Your task to perform on an android device: Clear all items from cart on walmart. Add "acer predator" to the cart on walmart Image 0: 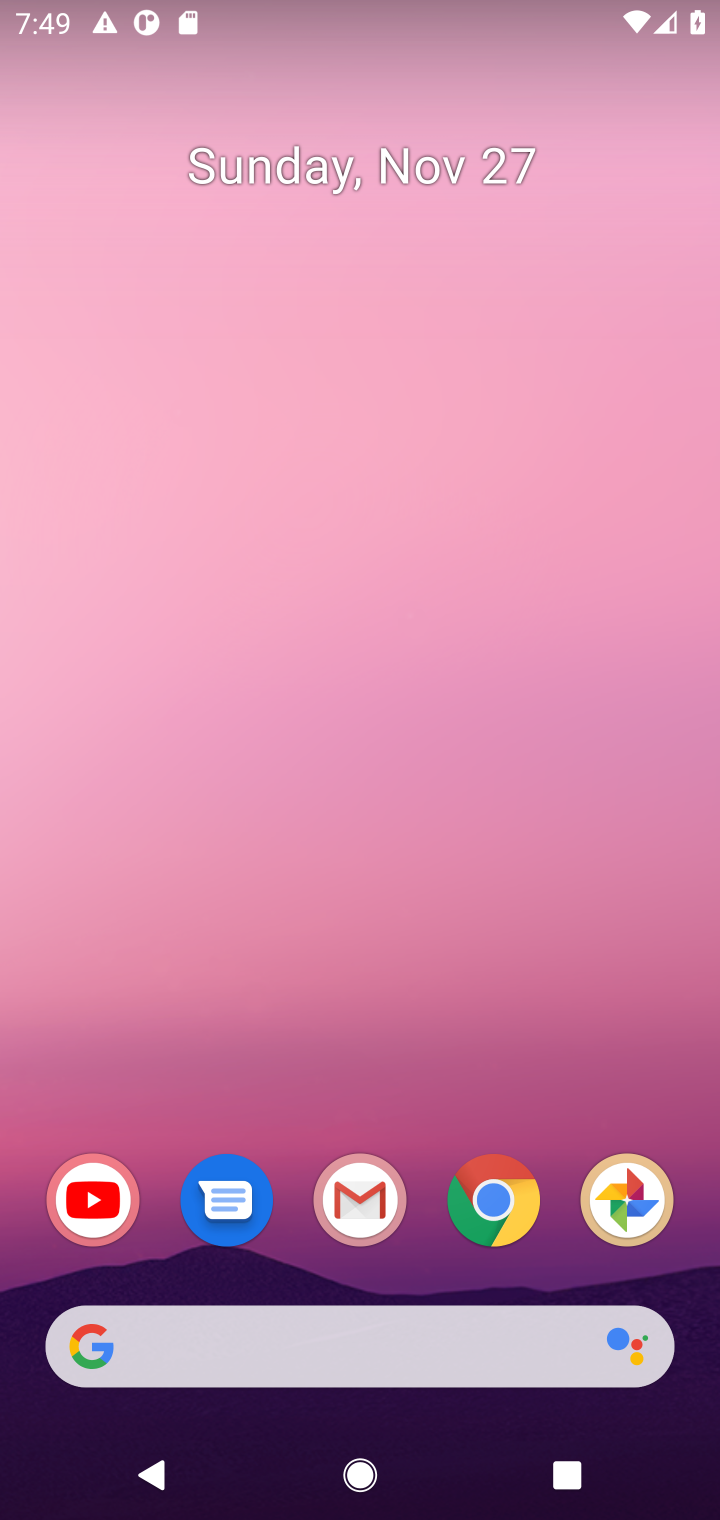
Step 0: click (494, 1206)
Your task to perform on an android device: Clear all items from cart on walmart. Add "acer predator" to the cart on walmart Image 1: 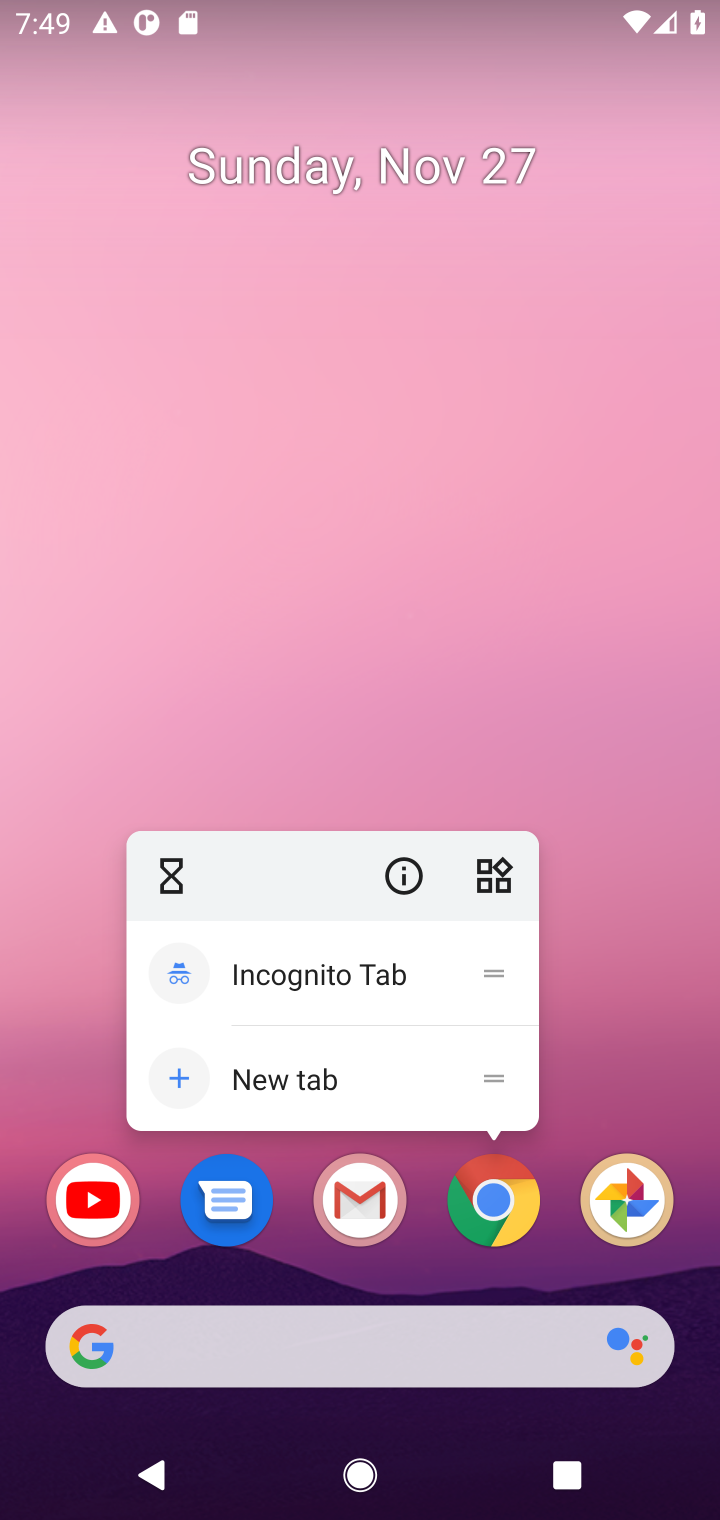
Step 1: click (494, 1206)
Your task to perform on an android device: Clear all items from cart on walmart. Add "acer predator" to the cart on walmart Image 2: 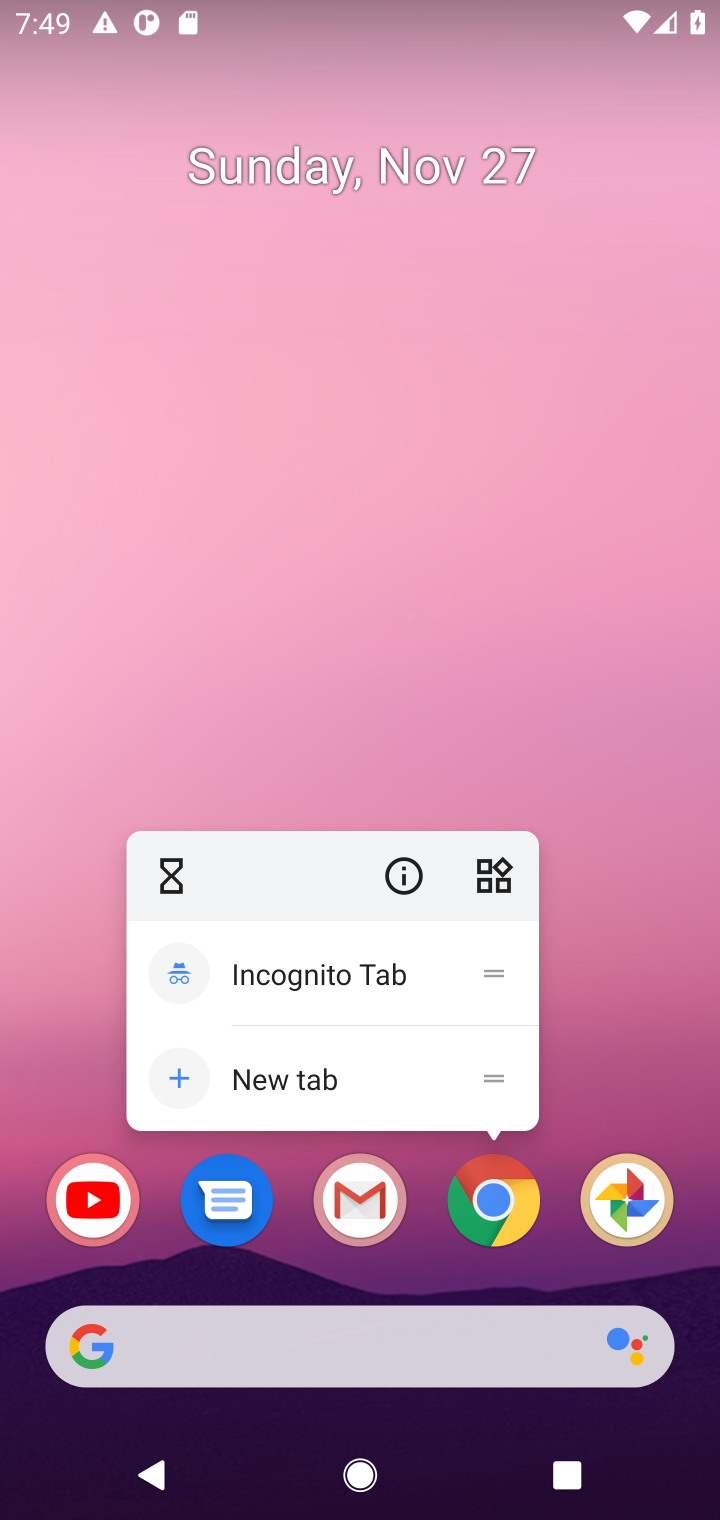
Step 2: click (499, 1201)
Your task to perform on an android device: Clear all items from cart on walmart. Add "acer predator" to the cart on walmart Image 3: 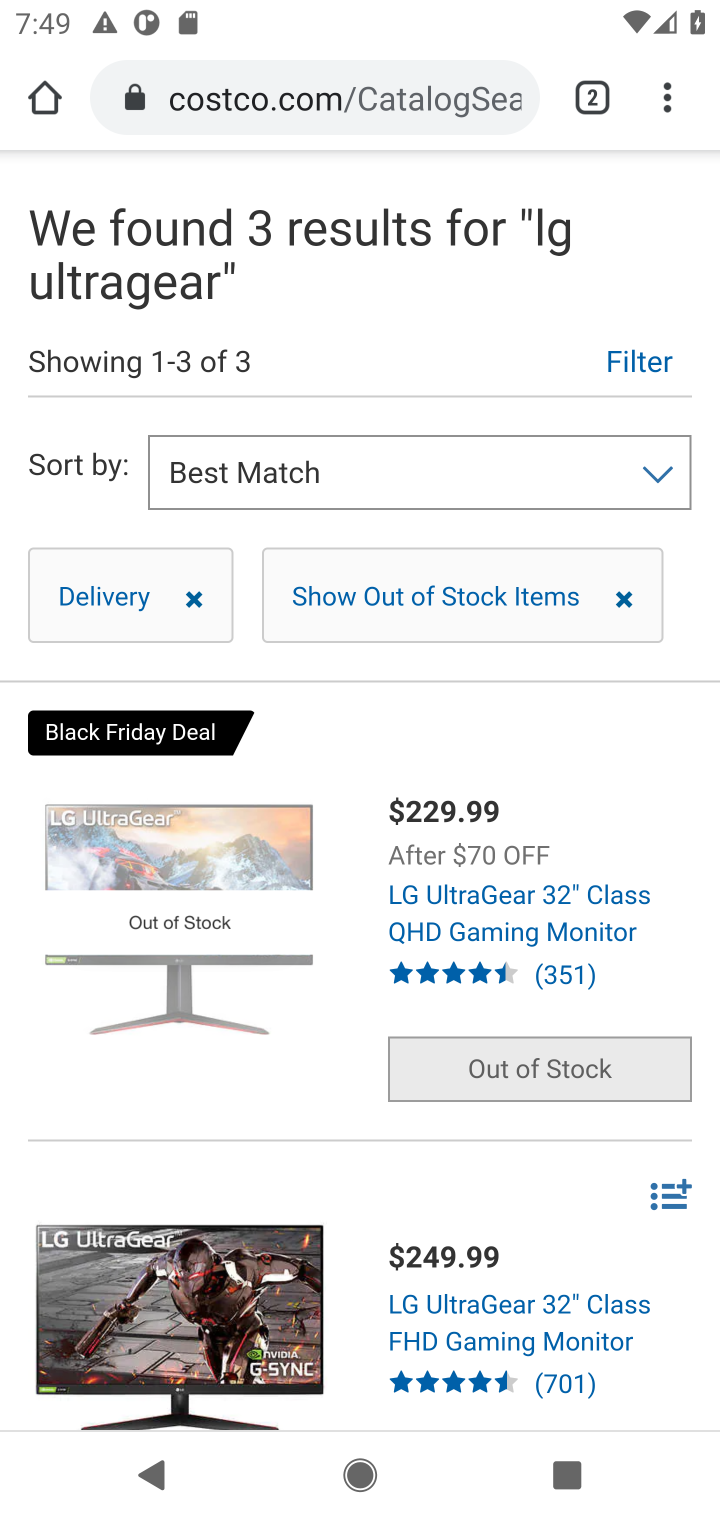
Step 3: click (326, 100)
Your task to perform on an android device: Clear all items from cart on walmart. Add "acer predator" to the cart on walmart Image 4: 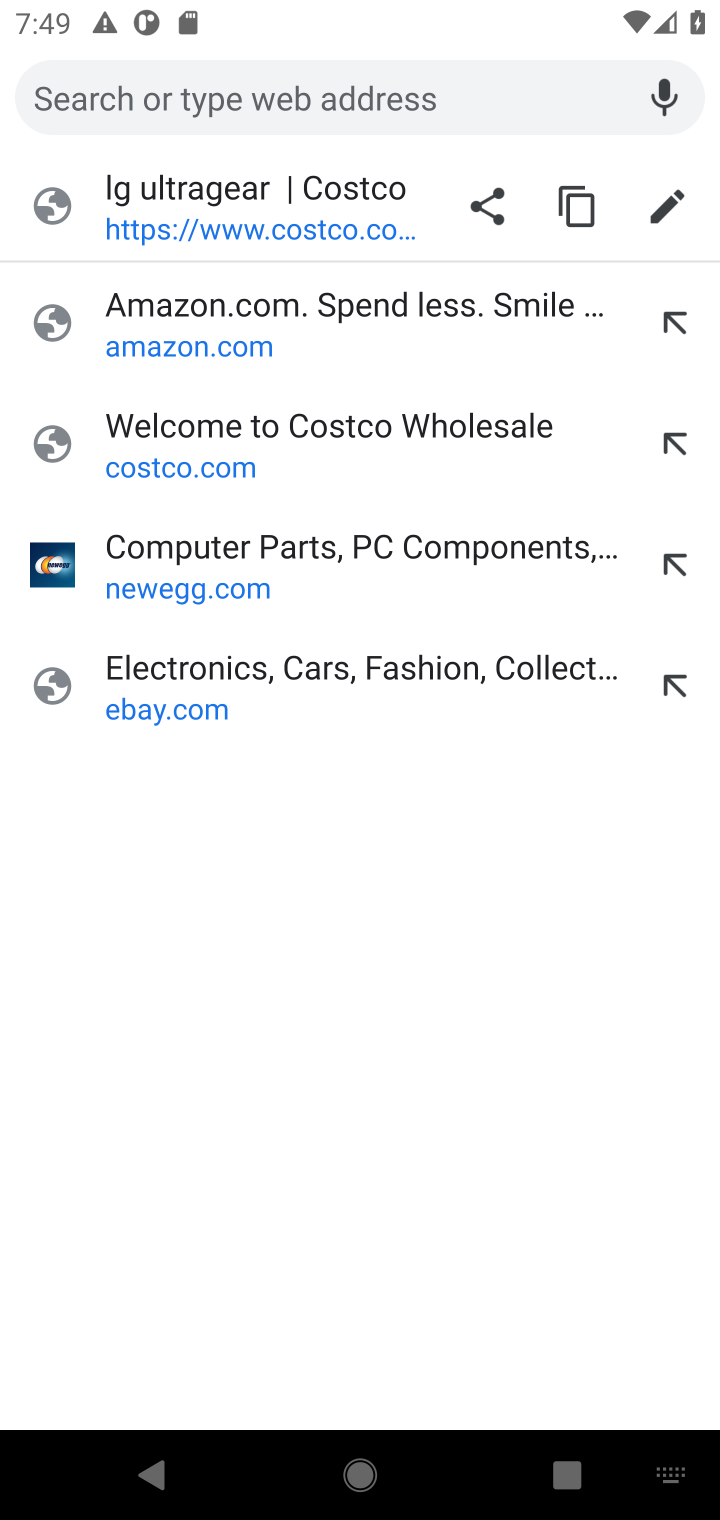
Step 4: type "walmart.com"
Your task to perform on an android device: Clear all items from cart on walmart. Add "acer predator" to the cart on walmart Image 5: 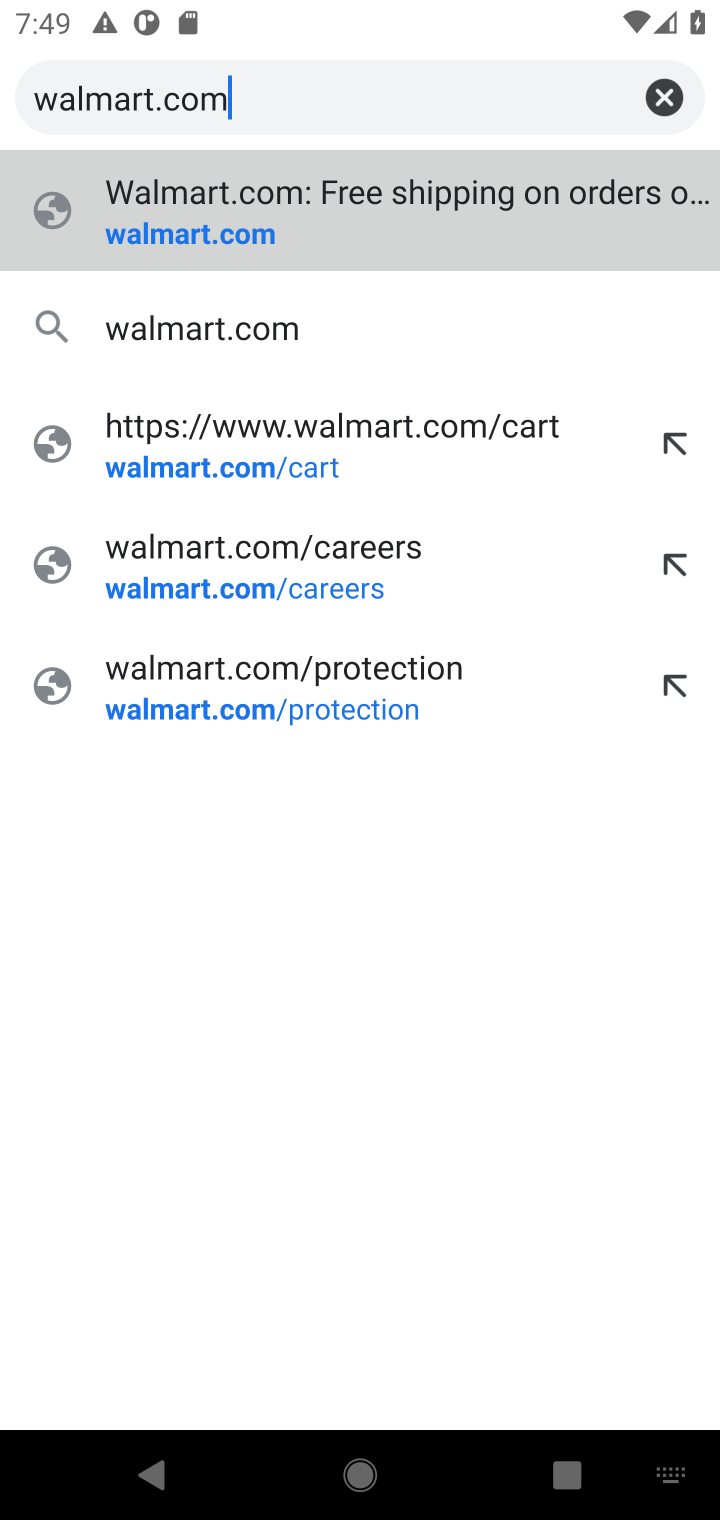
Step 5: click (142, 241)
Your task to perform on an android device: Clear all items from cart on walmart. Add "acer predator" to the cart on walmart Image 6: 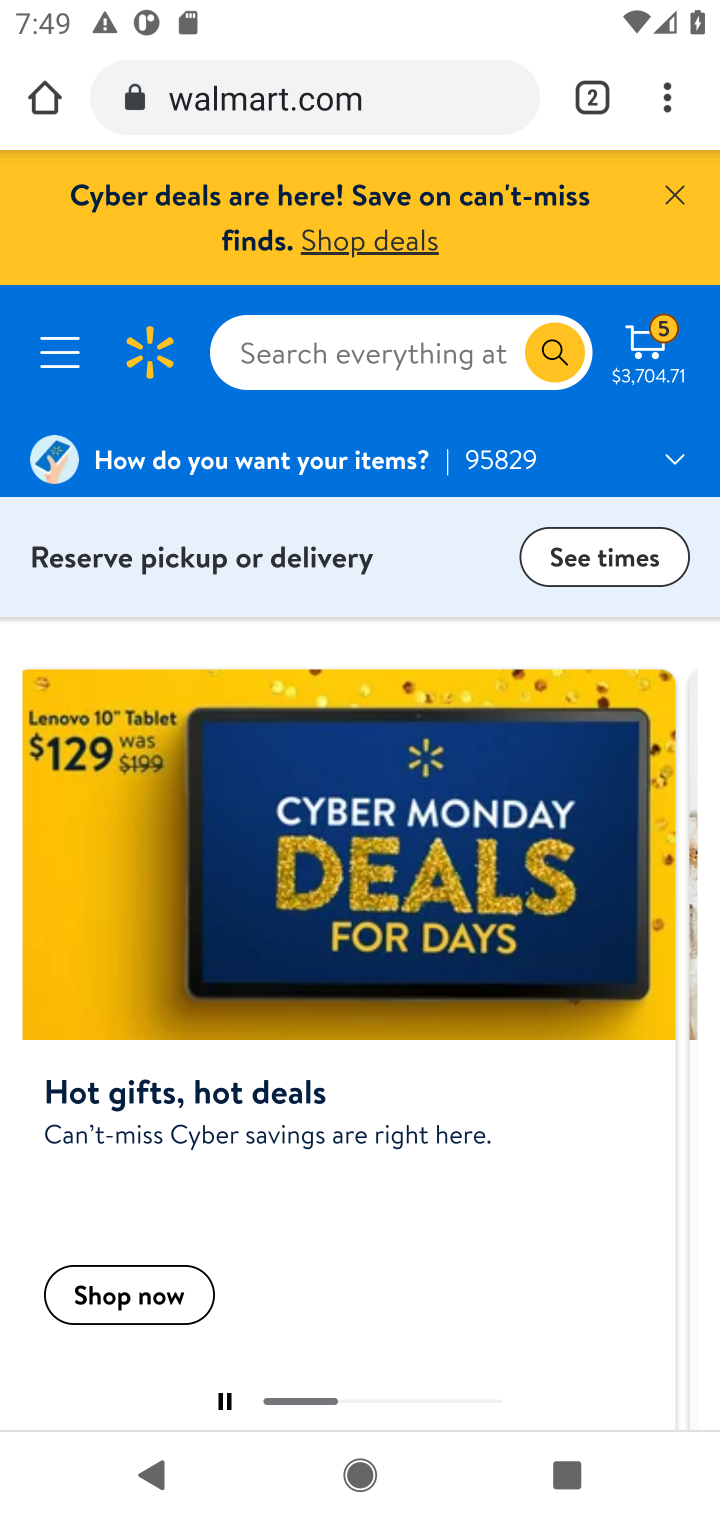
Step 6: click (642, 340)
Your task to perform on an android device: Clear all items from cart on walmart. Add "acer predator" to the cart on walmart Image 7: 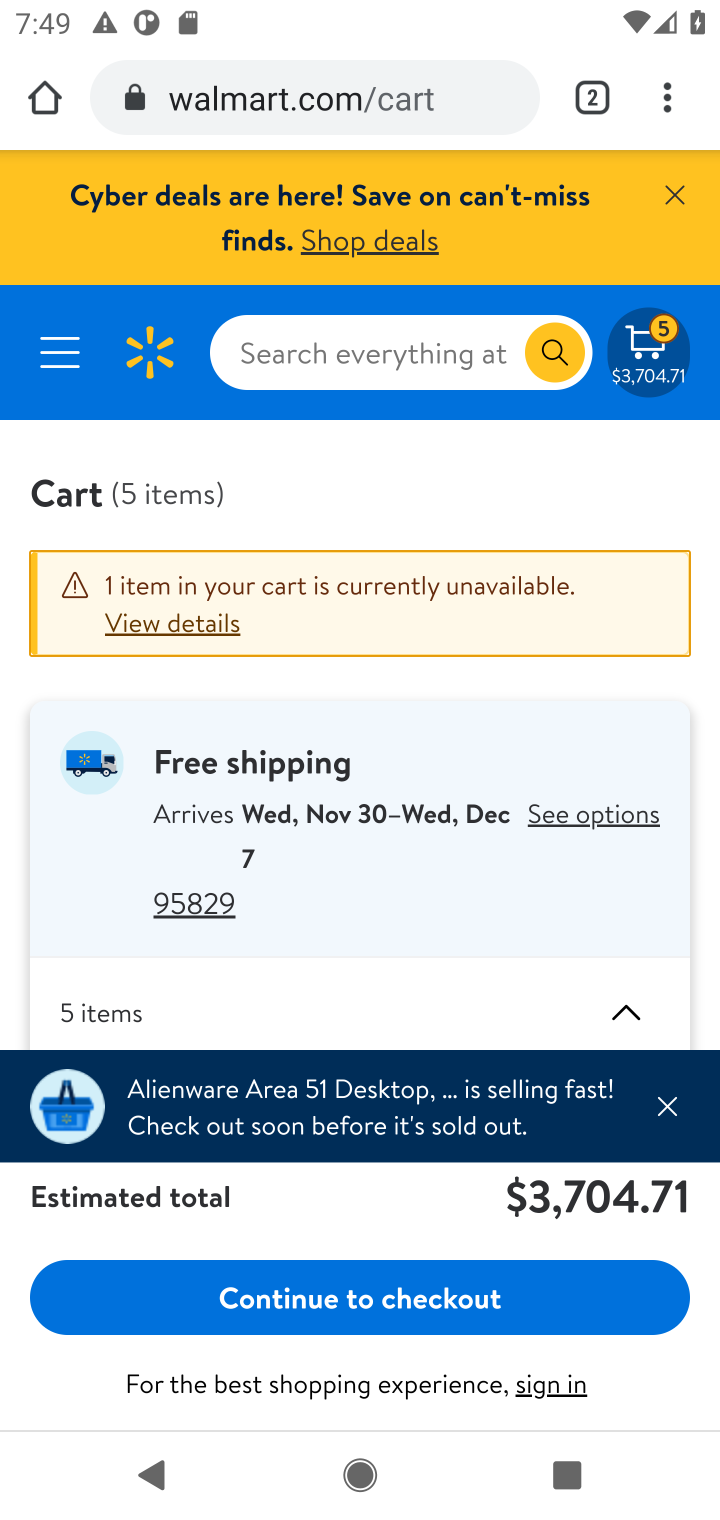
Step 7: drag from (453, 889) to (420, 482)
Your task to perform on an android device: Clear all items from cart on walmart. Add "acer predator" to the cart on walmart Image 8: 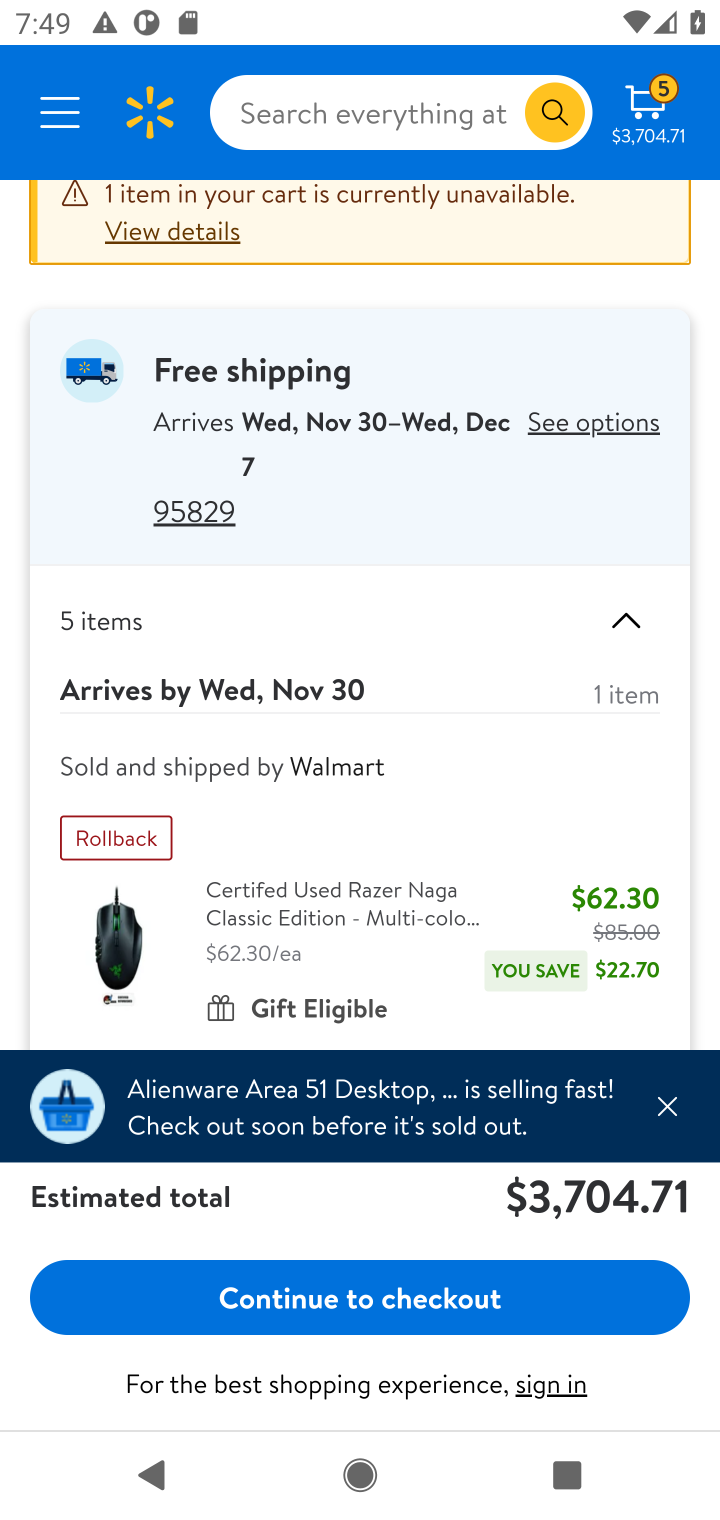
Step 8: drag from (365, 778) to (363, 448)
Your task to perform on an android device: Clear all items from cart on walmart. Add "acer predator" to the cart on walmart Image 9: 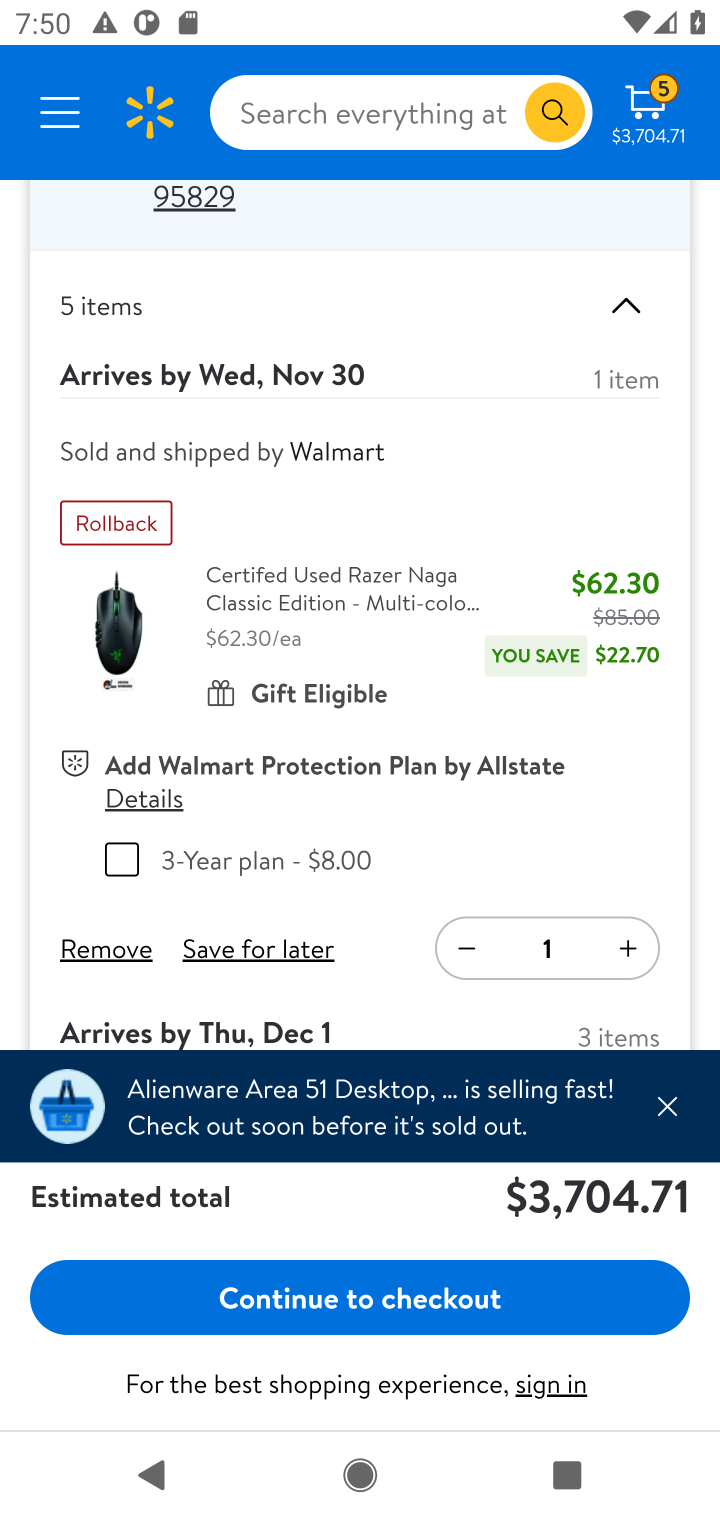
Step 9: click (88, 956)
Your task to perform on an android device: Clear all items from cart on walmart. Add "acer predator" to the cart on walmart Image 10: 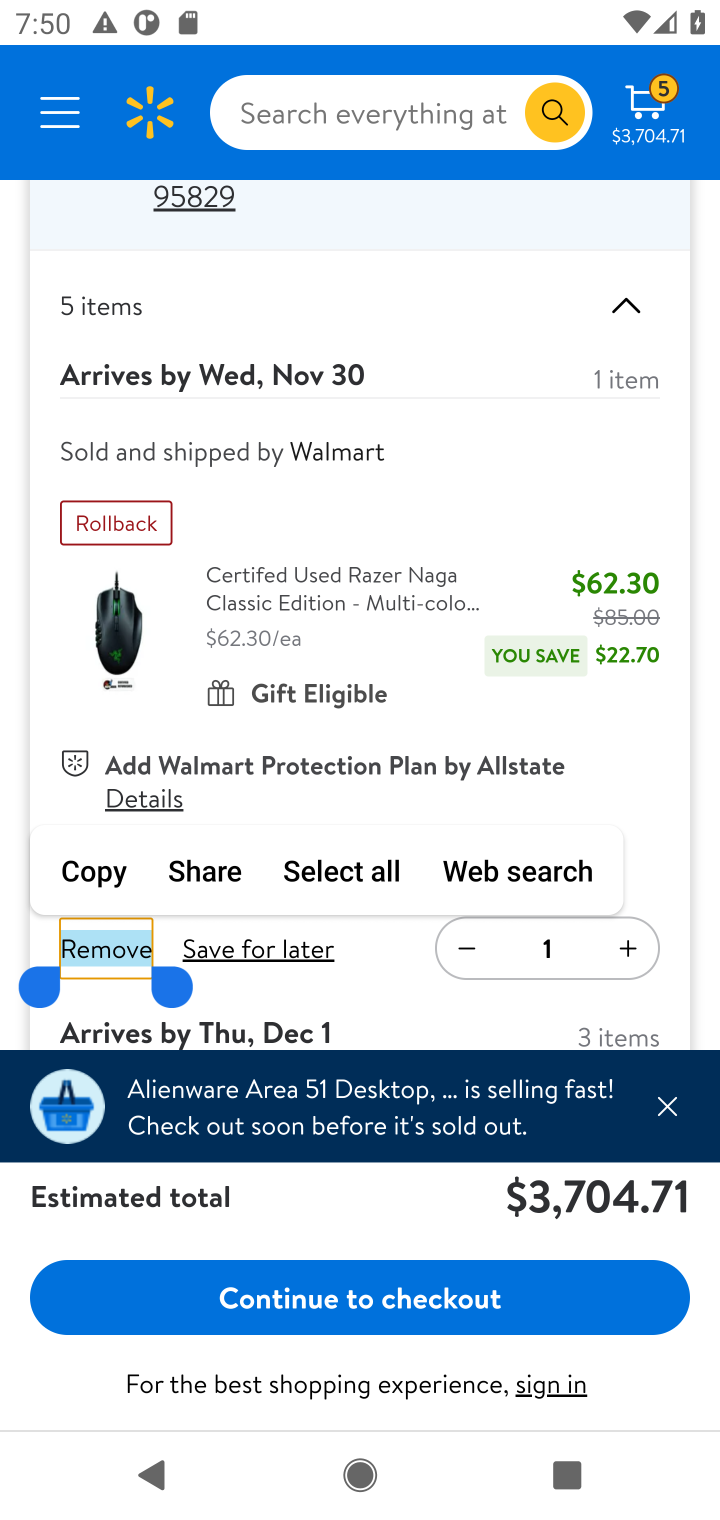
Step 10: click (88, 956)
Your task to perform on an android device: Clear all items from cart on walmart. Add "acer predator" to the cart on walmart Image 11: 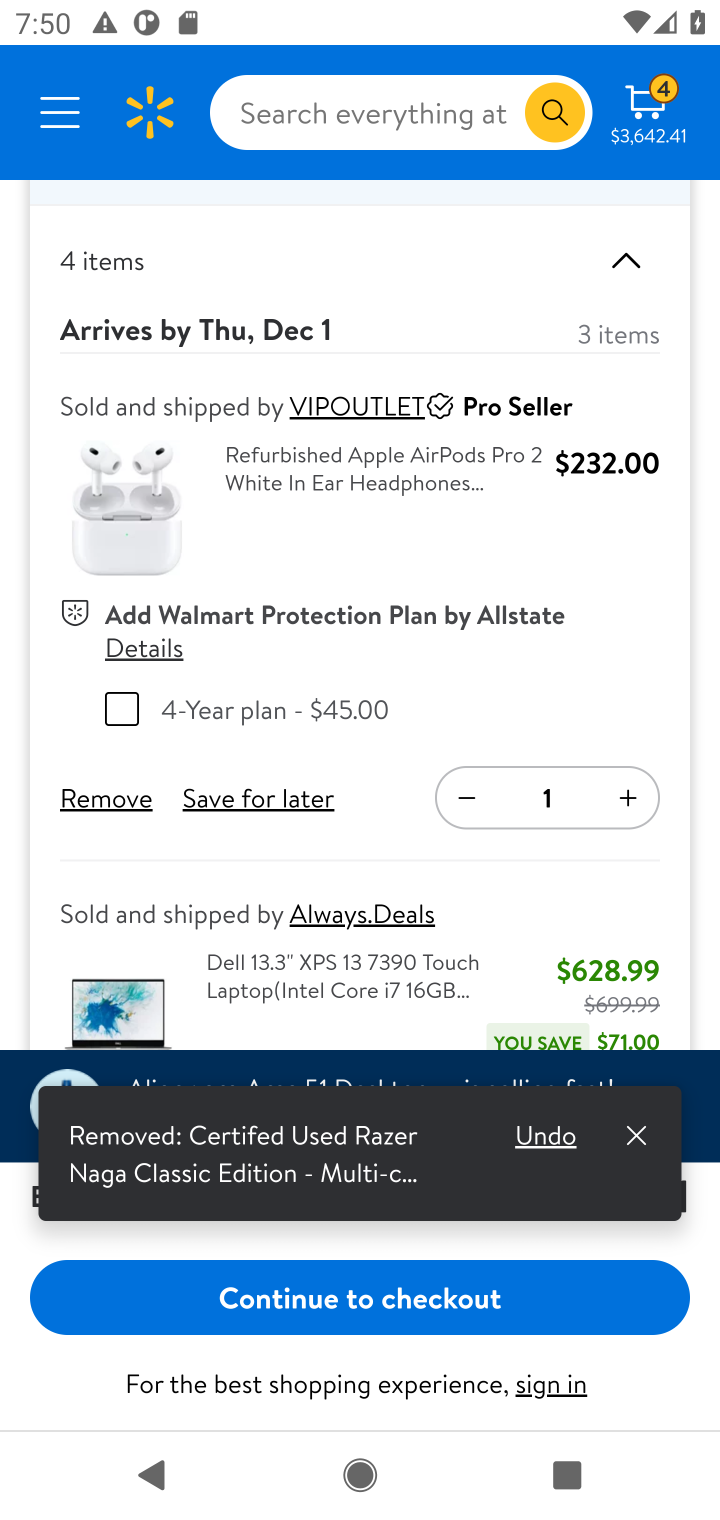
Step 11: click (83, 807)
Your task to perform on an android device: Clear all items from cart on walmart. Add "acer predator" to the cart on walmart Image 12: 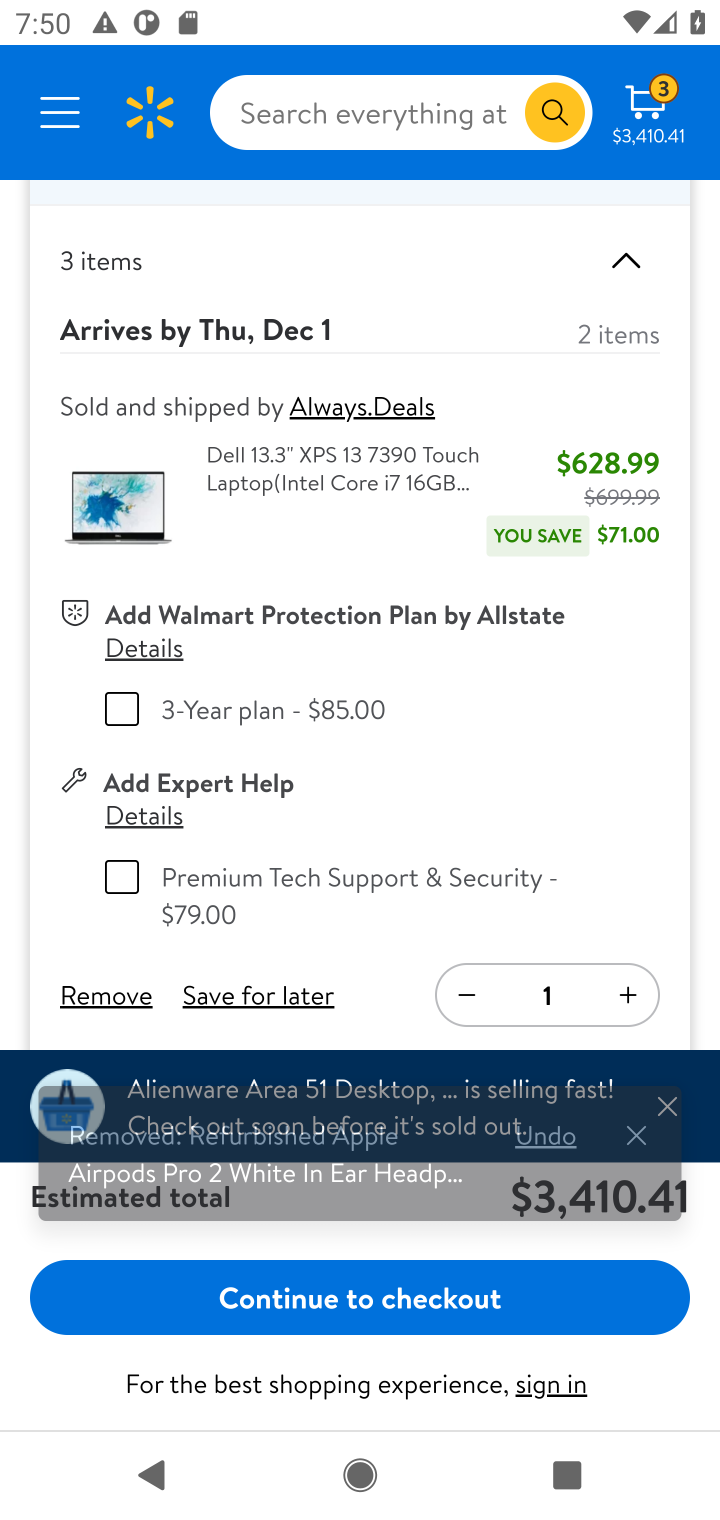
Step 12: click (98, 985)
Your task to perform on an android device: Clear all items from cart on walmart. Add "acer predator" to the cart on walmart Image 13: 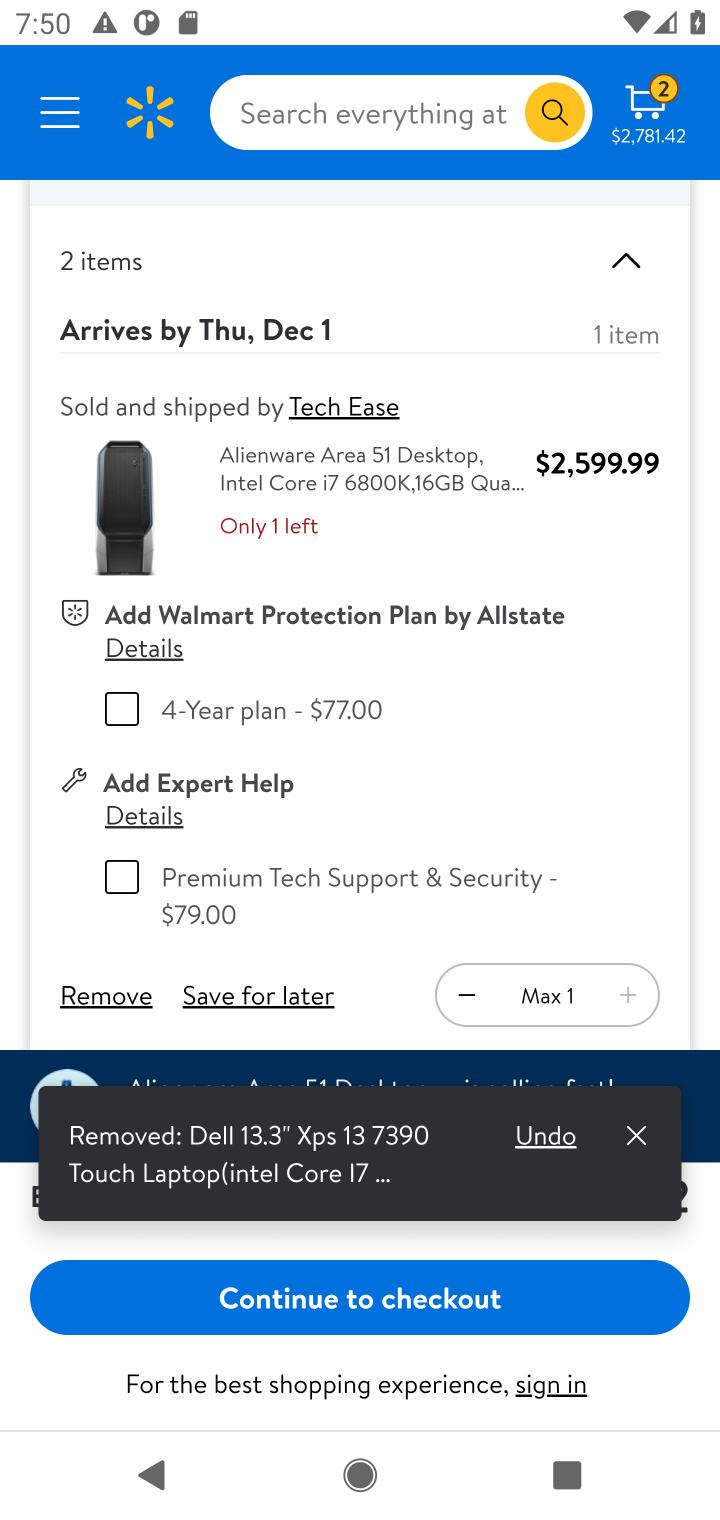
Step 13: click (94, 996)
Your task to perform on an android device: Clear all items from cart on walmart. Add "acer predator" to the cart on walmart Image 14: 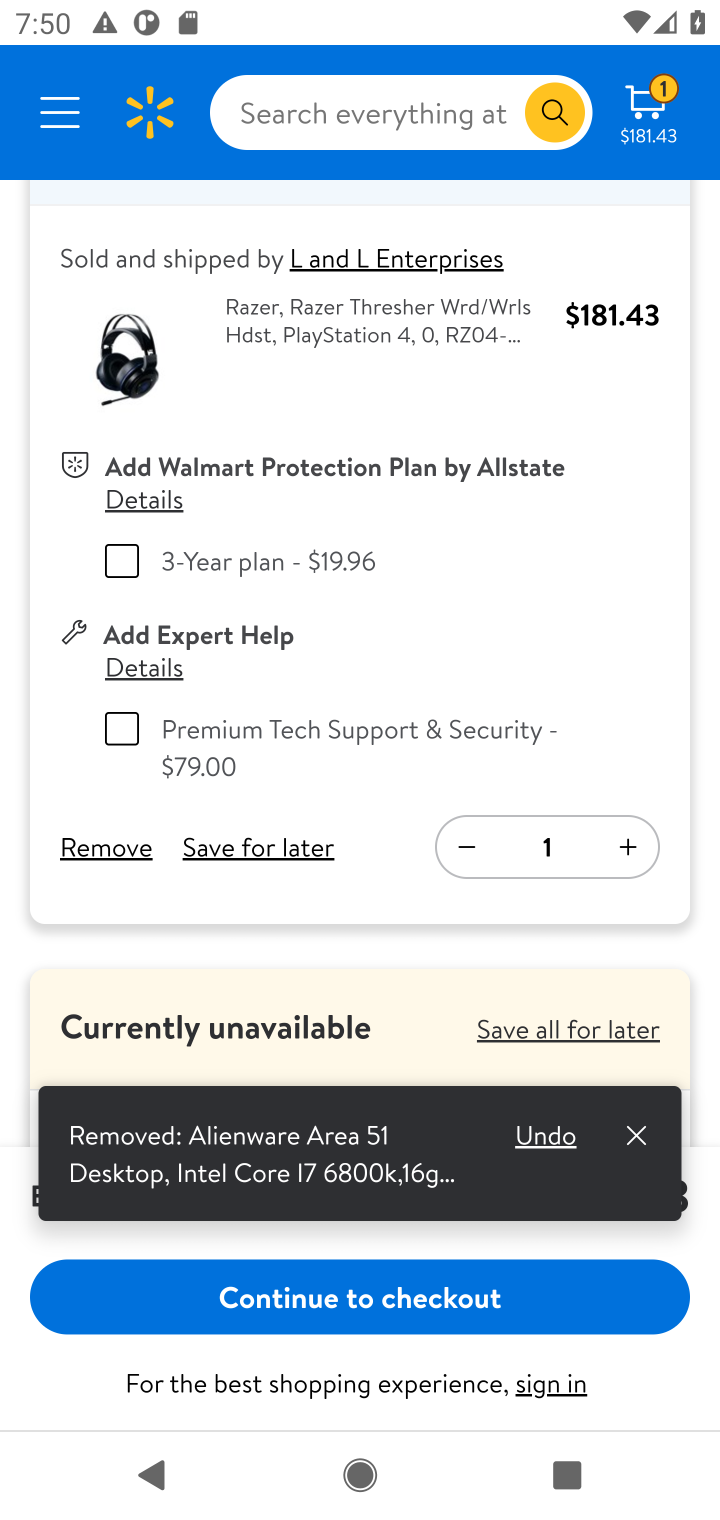
Step 14: click (102, 841)
Your task to perform on an android device: Clear all items from cart on walmart. Add "acer predator" to the cart on walmart Image 15: 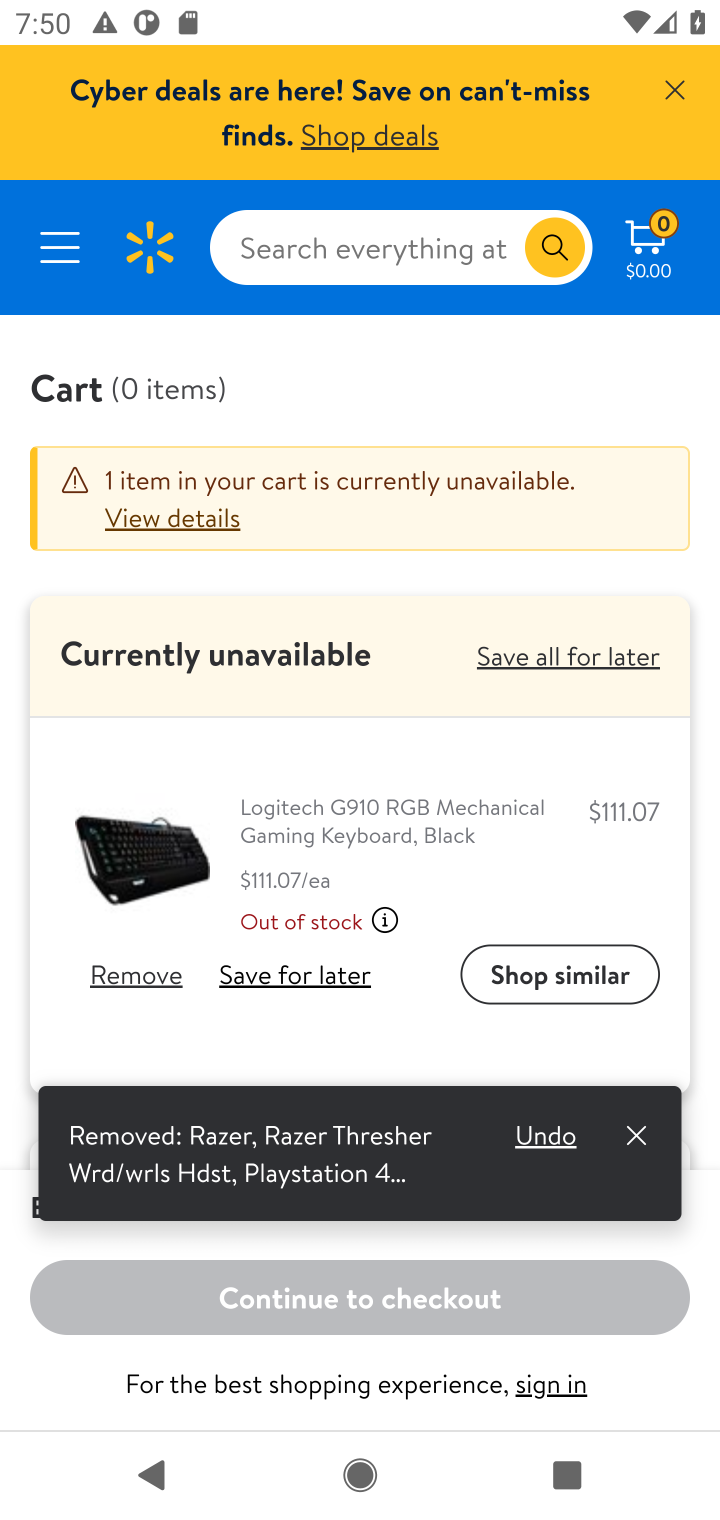
Step 15: click (112, 981)
Your task to perform on an android device: Clear all items from cart on walmart. Add "acer predator" to the cart on walmart Image 16: 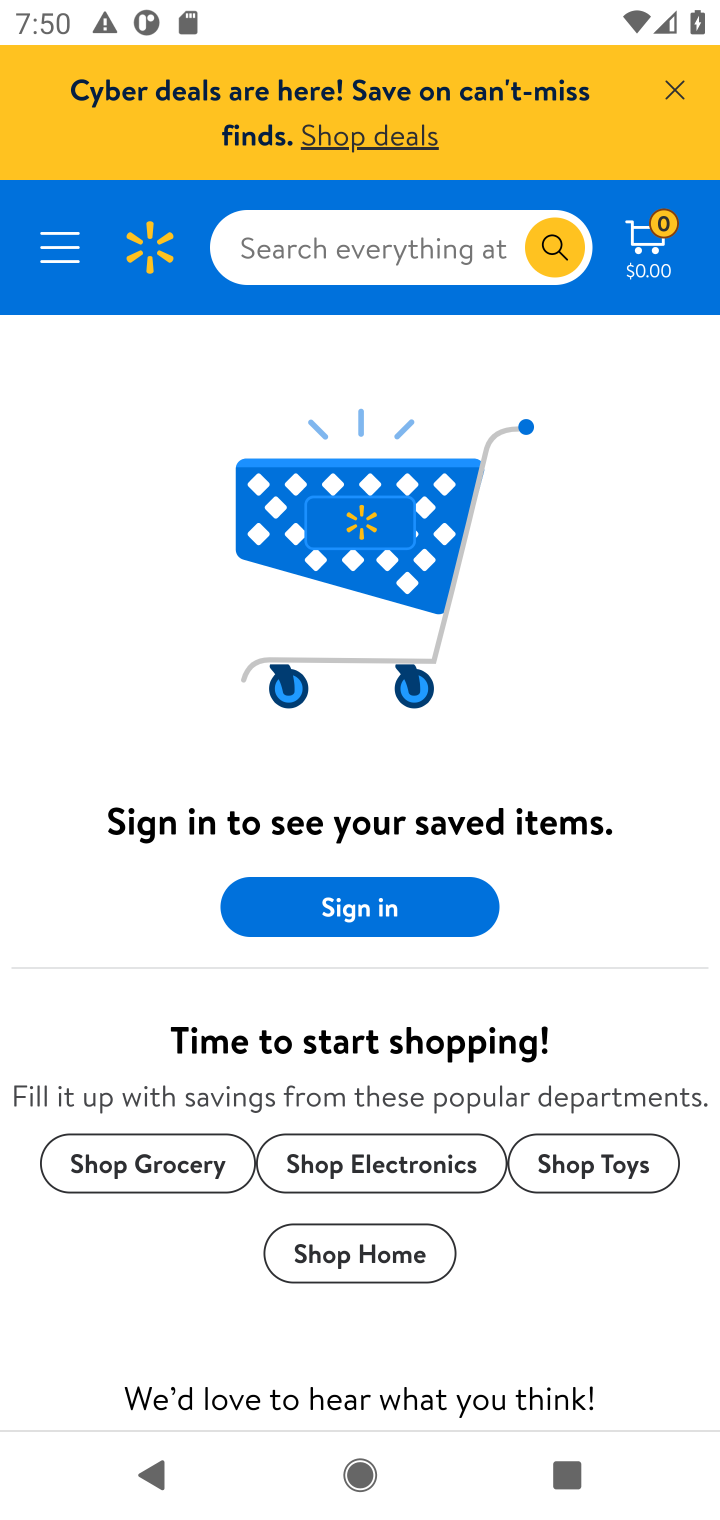
Step 16: click (276, 232)
Your task to perform on an android device: Clear all items from cart on walmart. Add "acer predator" to the cart on walmart Image 17: 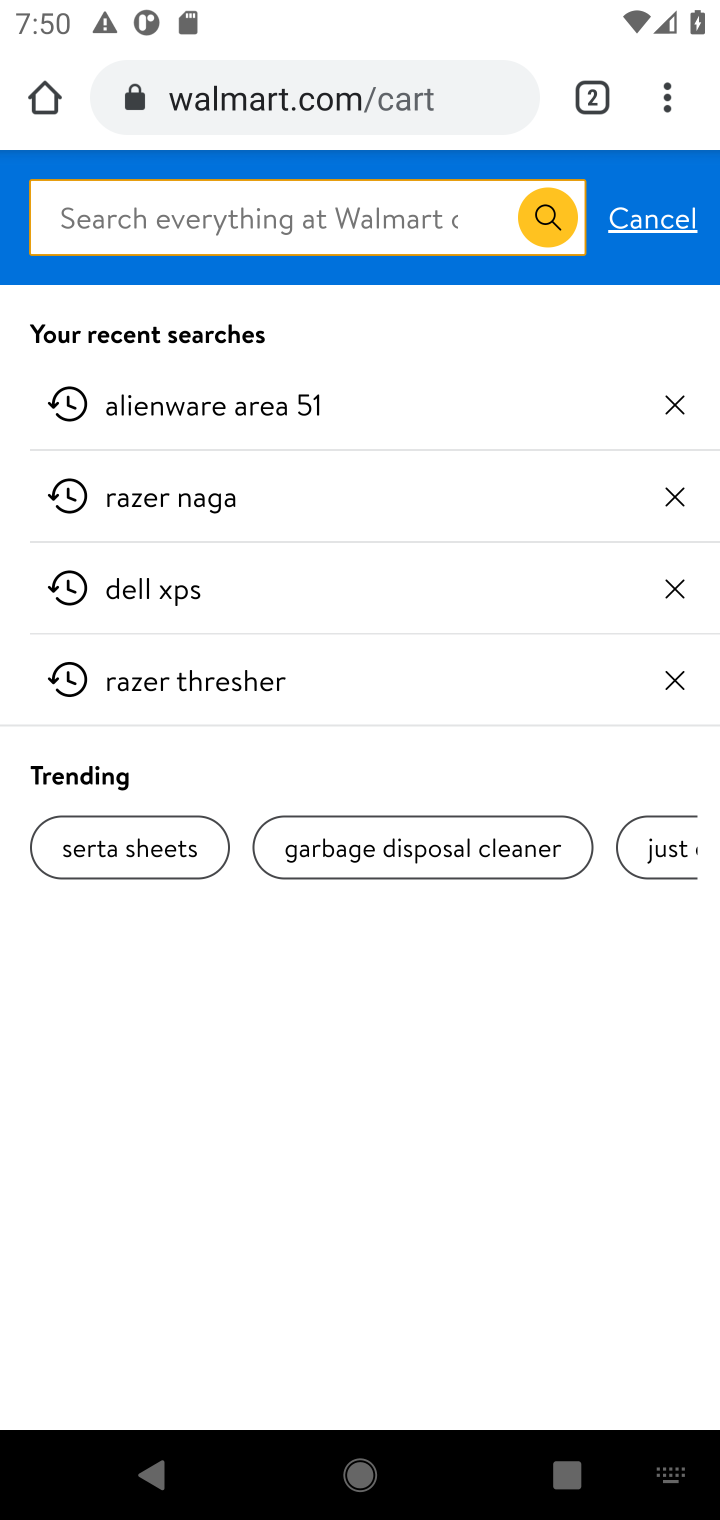
Step 17: type "acer predator"
Your task to perform on an android device: Clear all items from cart on walmart. Add "acer predator" to the cart on walmart Image 18: 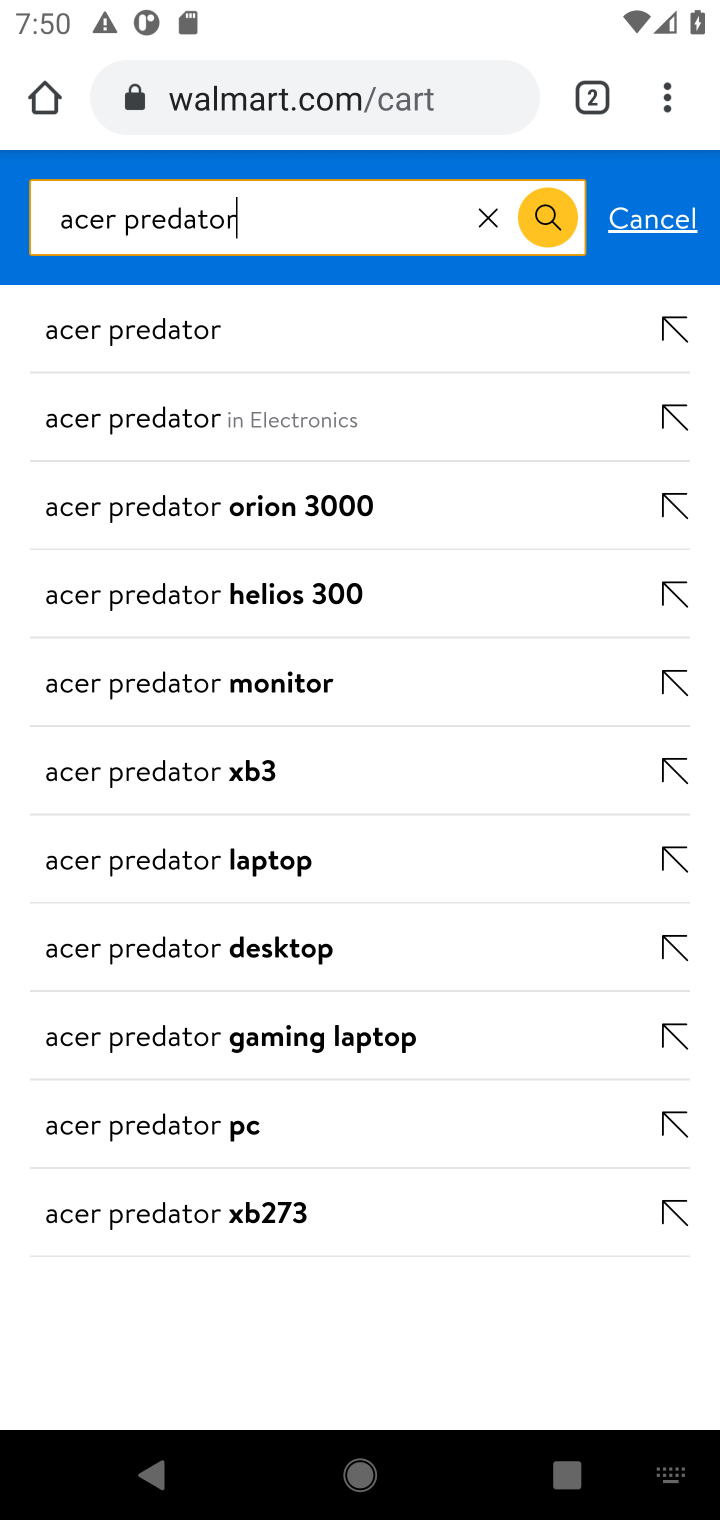
Step 18: click (101, 312)
Your task to perform on an android device: Clear all items from cart on walmart. Add "acer predator" to the cart on walmart Image 19: 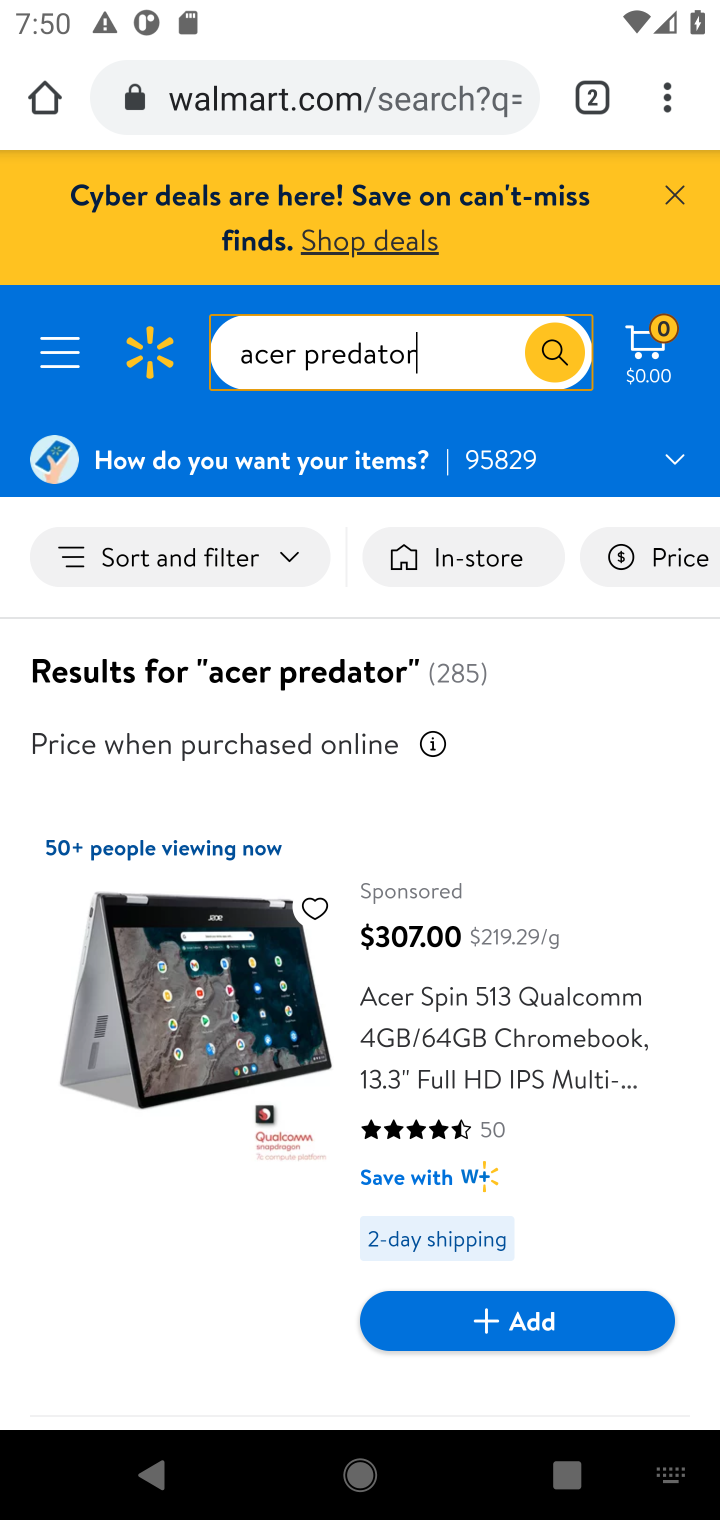
Step 19: drag from (298, 937) to (367, 456)
Your task to perform on an android device: Clear all items from cart on walmart. Add "acer predator" to the cart on walmart Image 20: 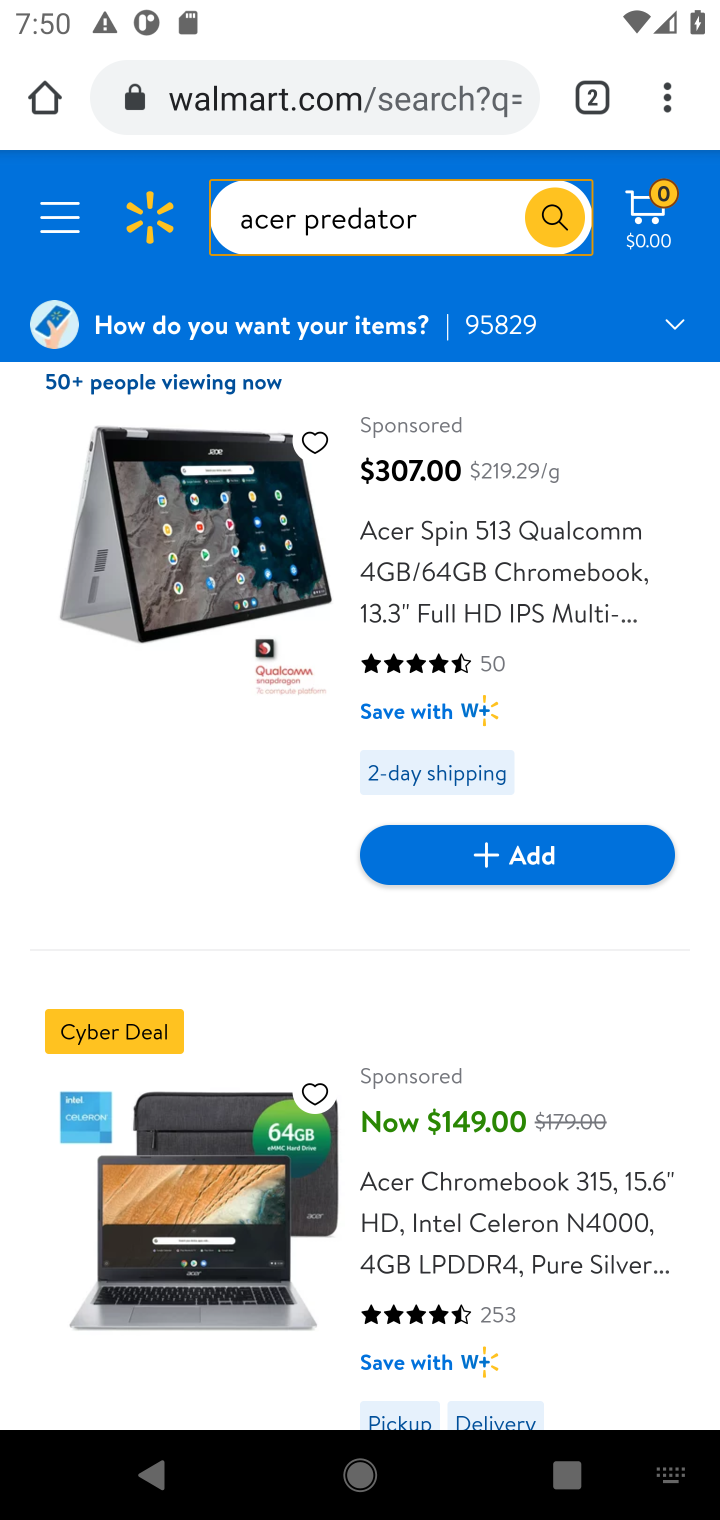
Step 20: drag from (261, 1131) to (288, 561)
Your task to perform on an android device: Clear all items from cart on walmart. Add "acer predator" to the cart on walmart Image 21: 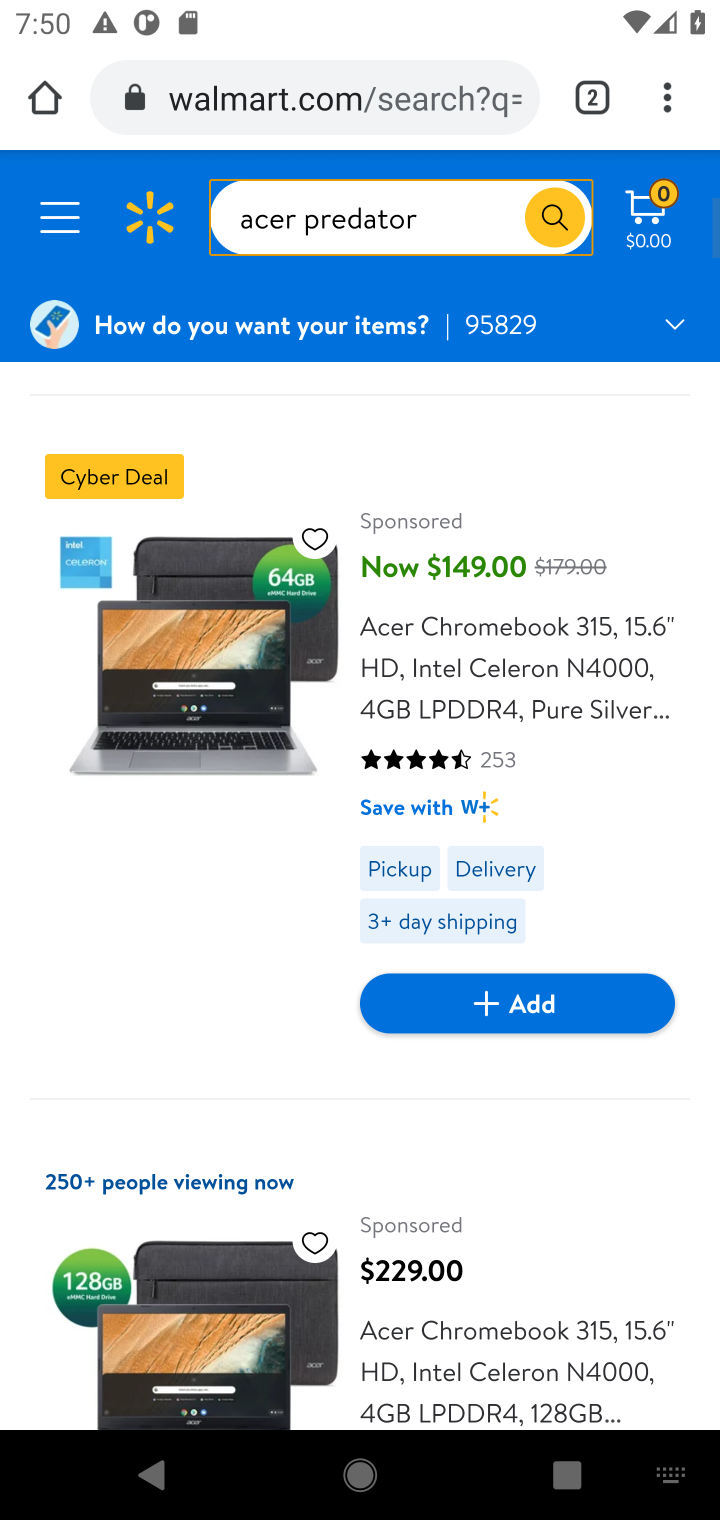
Step 21: drag from (175, 1098) to (173, 646)
Your task to perform on an android device: Clear all items from cart on walmart. Add "acer predator" to the cart on walmart Image 22: 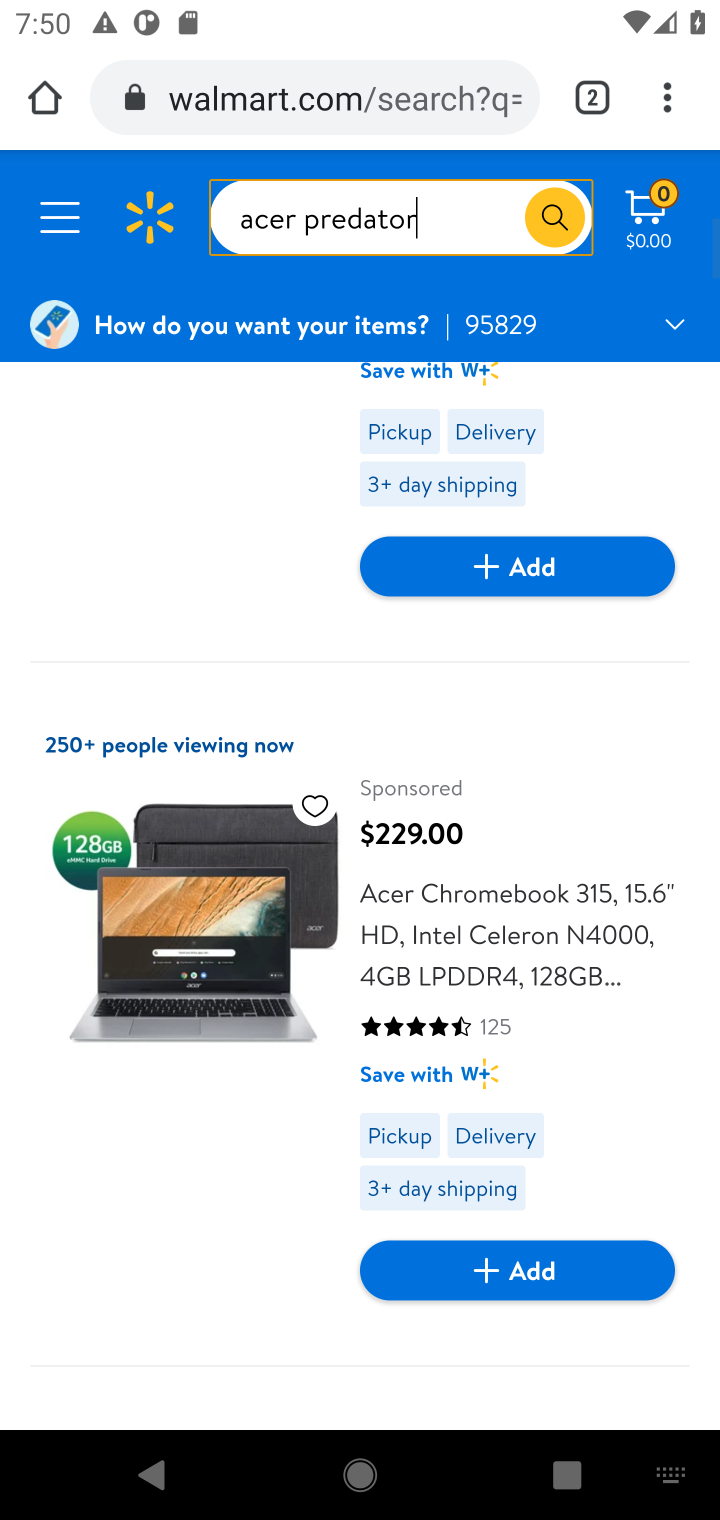
Step 22: drag from (149, 1122) to (254, 547)
Your task to perform on an android device: Clear all items from cart on walmart. Add "acer predator" to the cart on walmart Image 23: 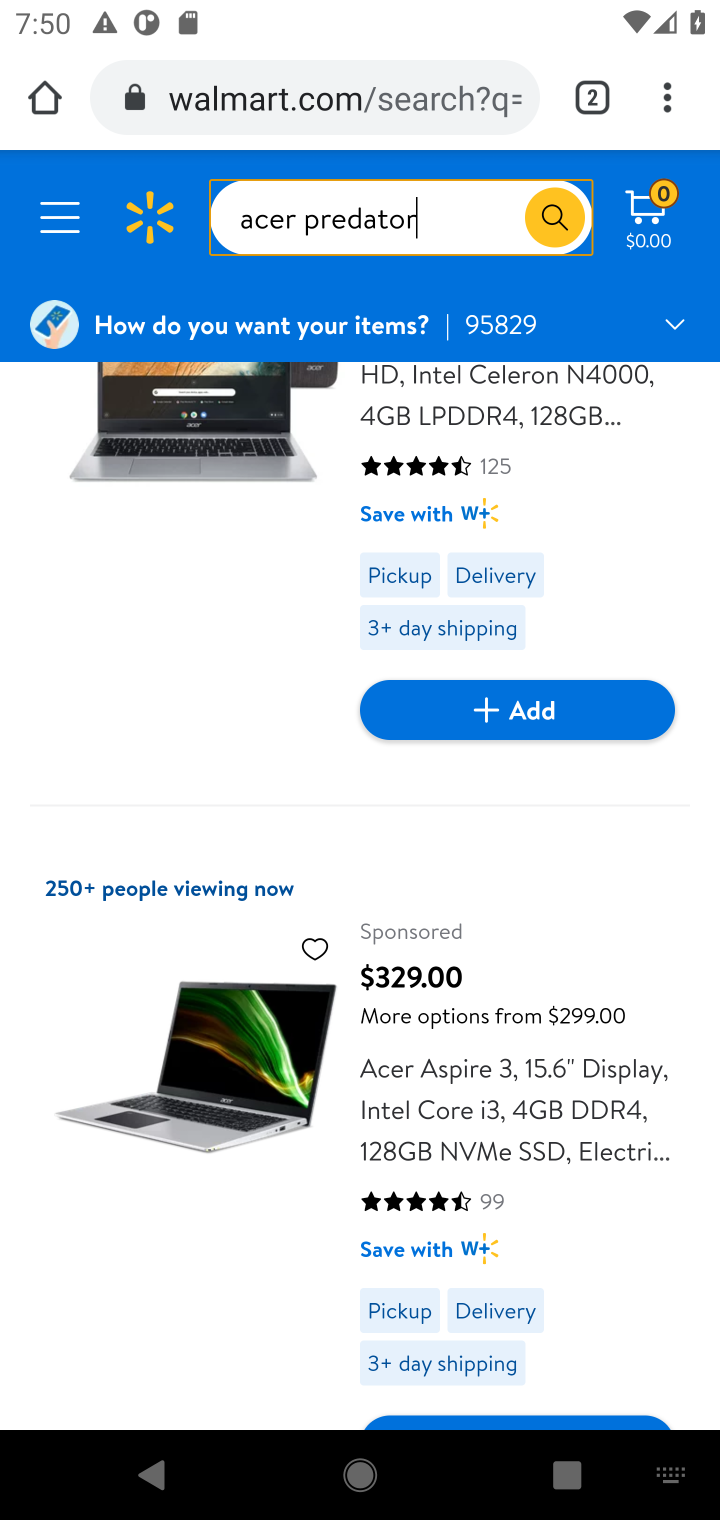
Step 23: drag from (245, 1092) to (289, 599)
Your task to perform on an android device: Clear all items from cart on walmart. Add "acer predator" to the cart on walmart Image 24: 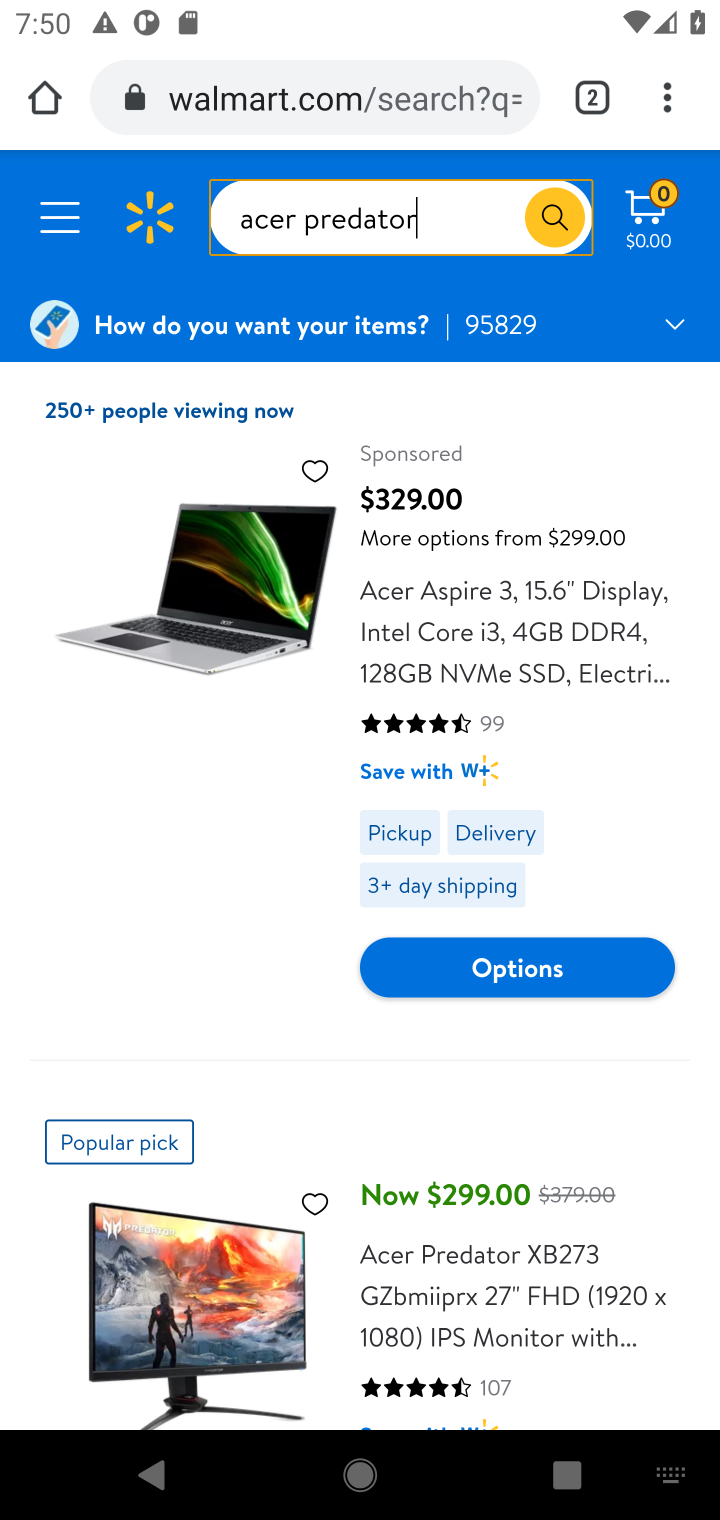
Step 24: drag from (268, 1264) to (329, 745)
Your task to perform on an android device: Clear all items from cart on walmart. Add "acer predator" to the cart on walmart Image 25: 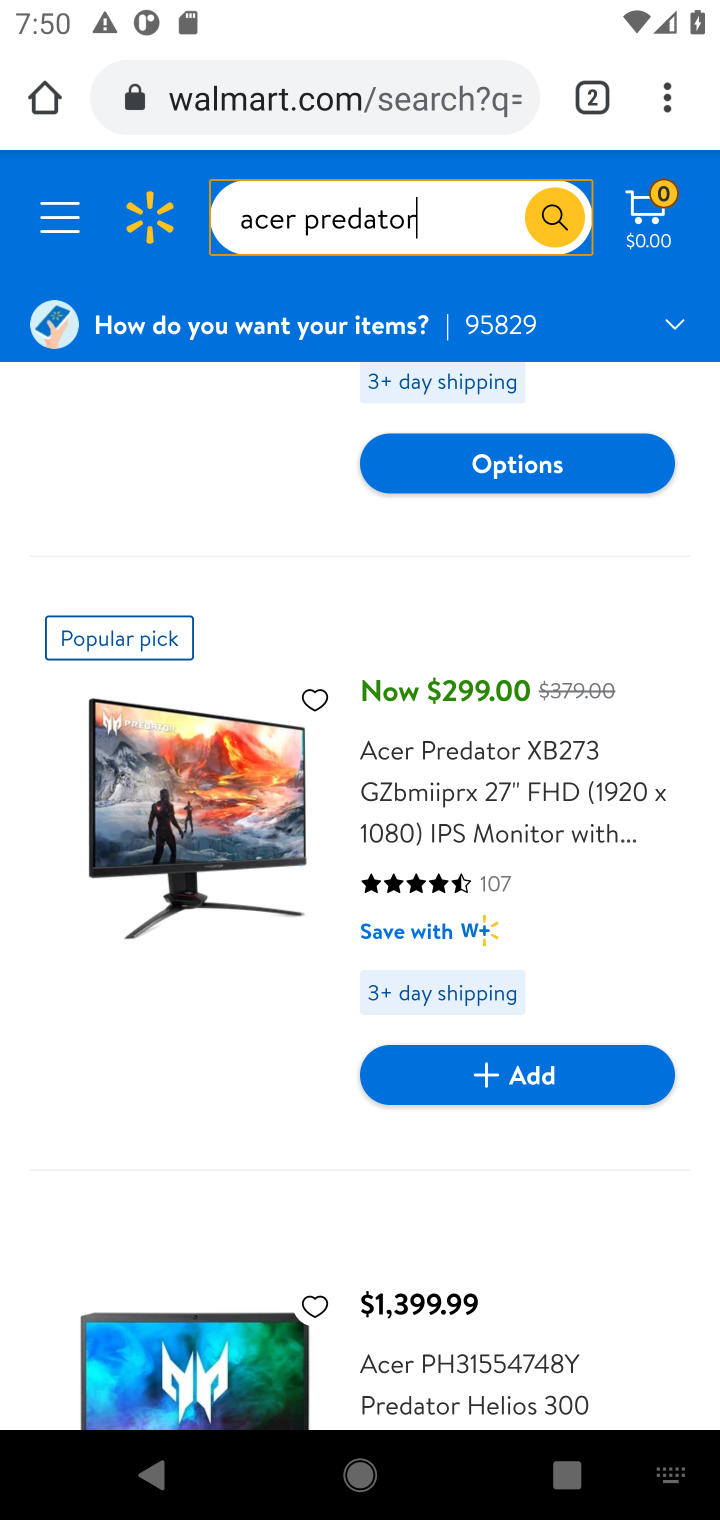
Step 25: click (526, 1082)
Your task to perform on an android device: Clear all items from cart on walmart. Add "acer predator" to the cart on walmart Image 26: 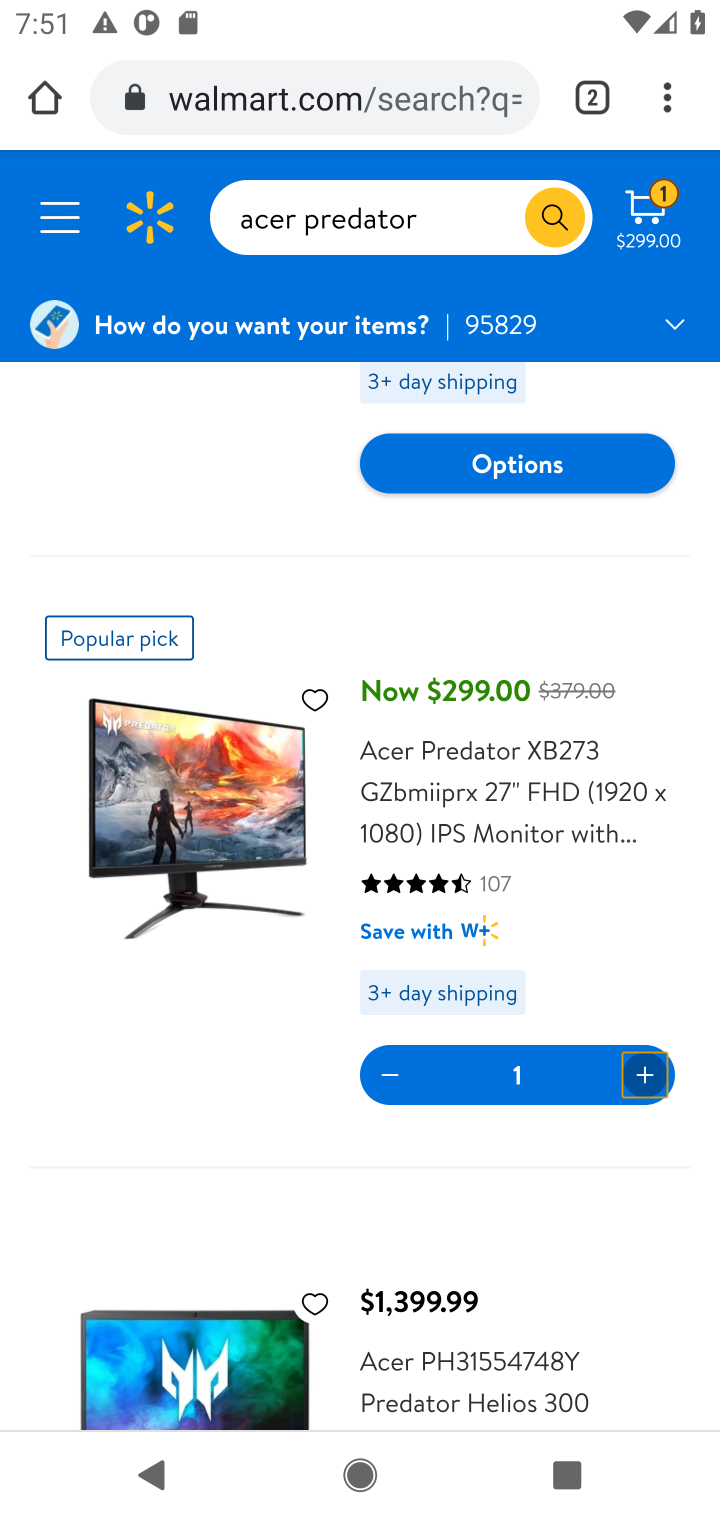
Step 26: task complete